Your task to perform on an android device: Add razer thresher to the cart on costco.com, then select checkout. Image 0: 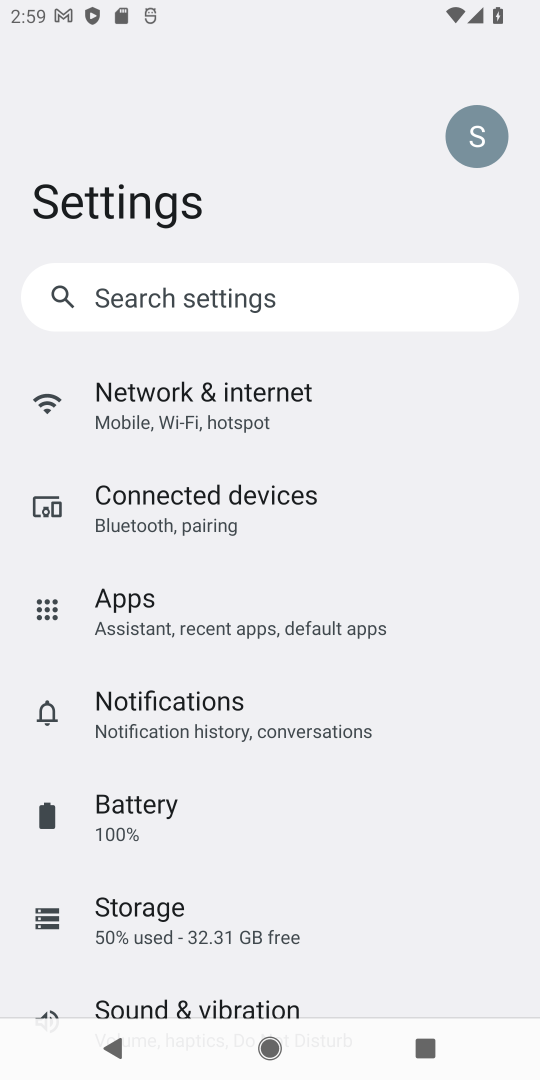
Step 0: press home button
Your task to perform on an android device: Add razer thresher to the cart on costco.com, then select checkout. Image 1: 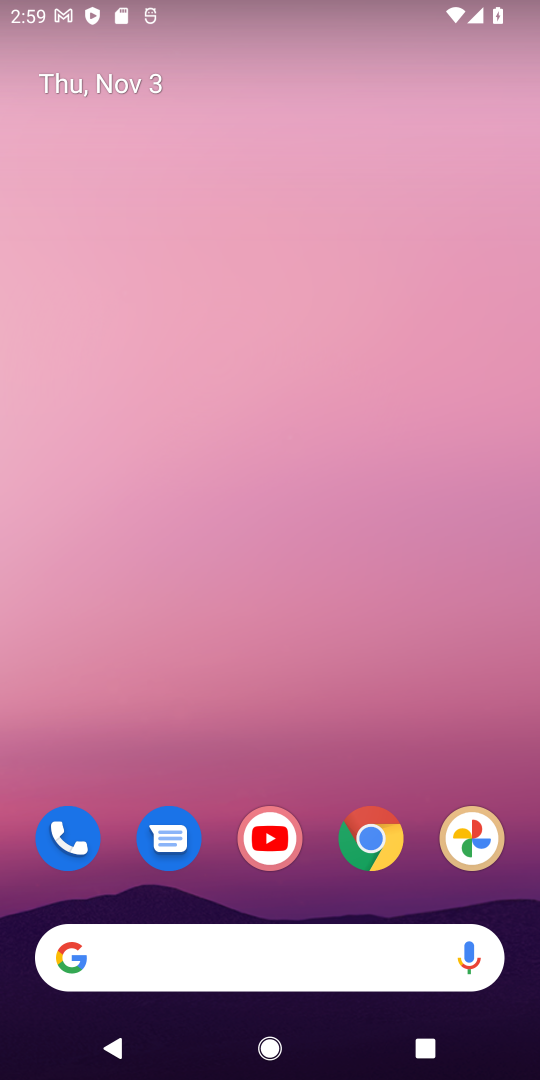
Step 1: drag from (326, 882) to (391, 227)
Your task to perform on an android device: Add razer thresher to the cart on costco.com, then select checkout. Image 2: 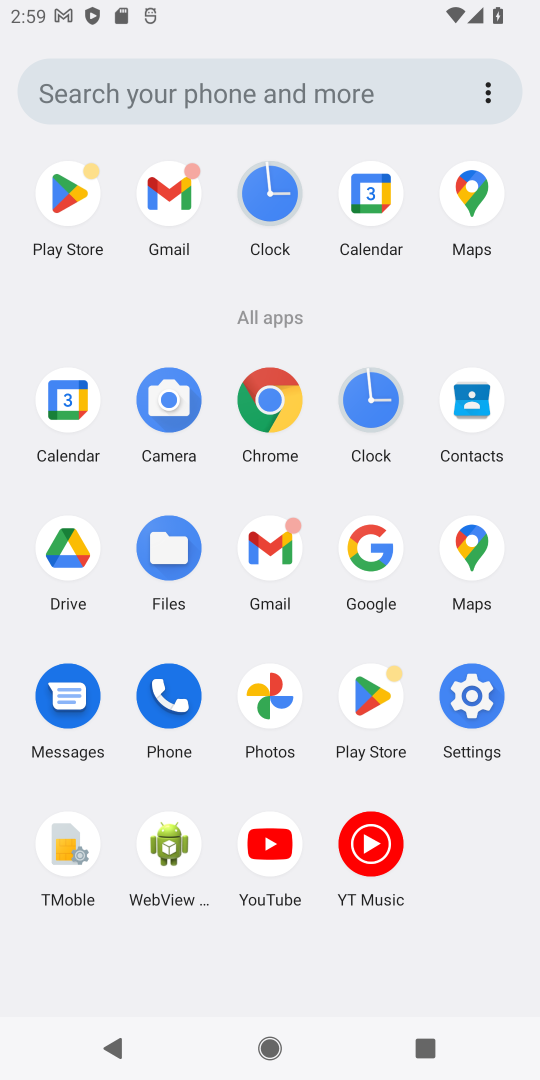
Step 2: click (268, 399)
Your task to perform on an android device: Add razer thresher to the cart on costco.com, then select checkout. Image 3: 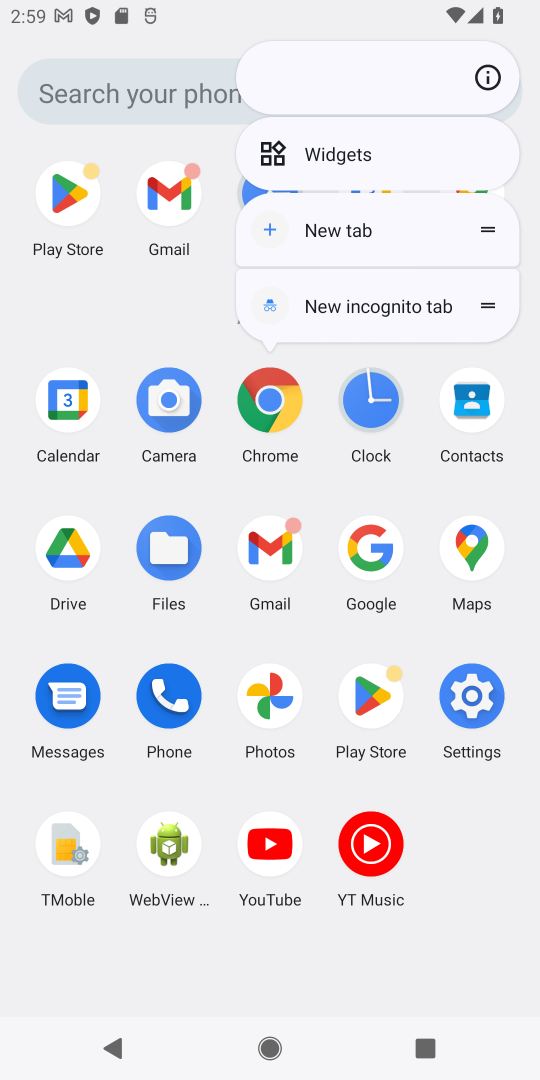
Step 3: click (268, 399)
Your task to perform on an android device: Add razer thresher to the cart on costco.com, then select checkout. Image 4: 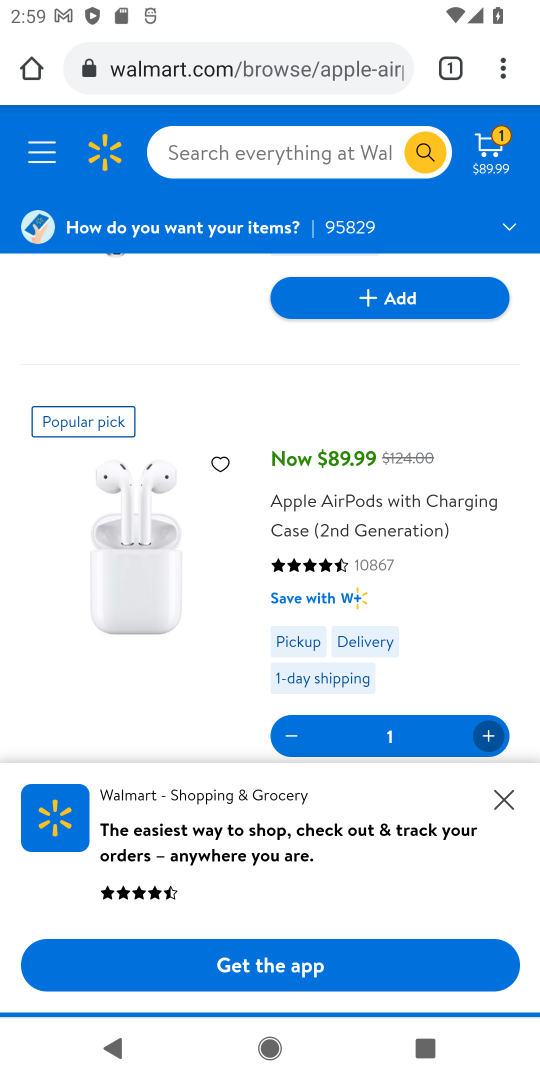
Step 4: click (307, 62)
Your task to perform on an android device: Add razer thresher to the cart on costco.com, then select checkout. Image 5: 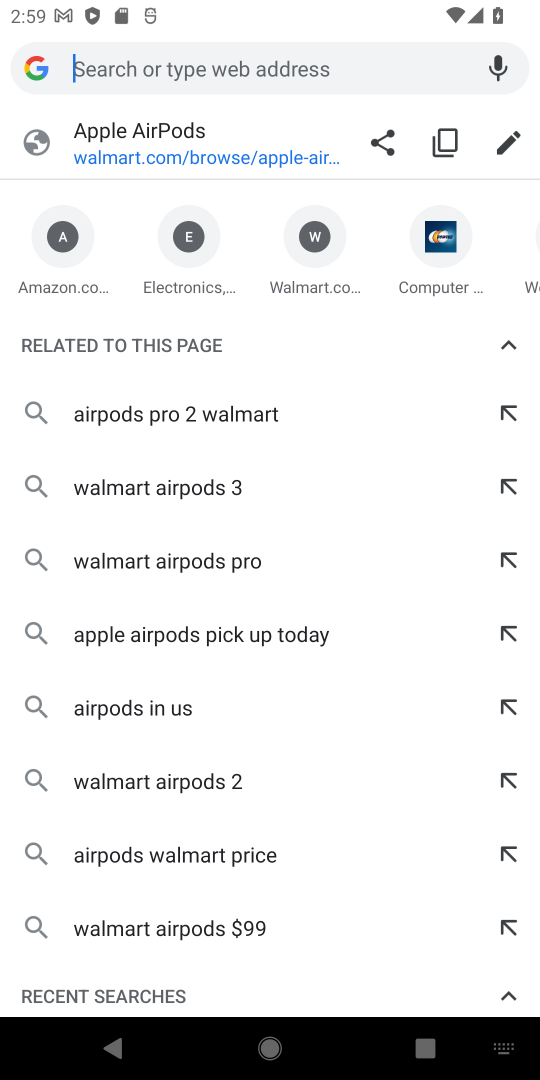
Step 5: type "costco.com"
Your task to perform on an android device: Add razer thresher to the cart on costco.com, then select checkout. Image 6: 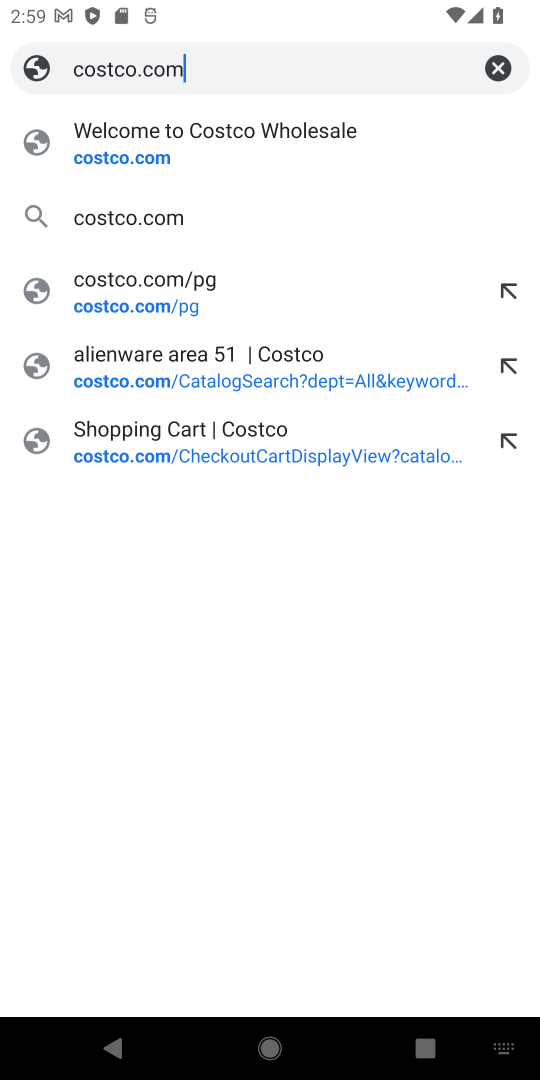
Step 6: press enter
Your task to perform on an android device: Add razer thresher to the cart on costco.com, then select checkout. Image 7: 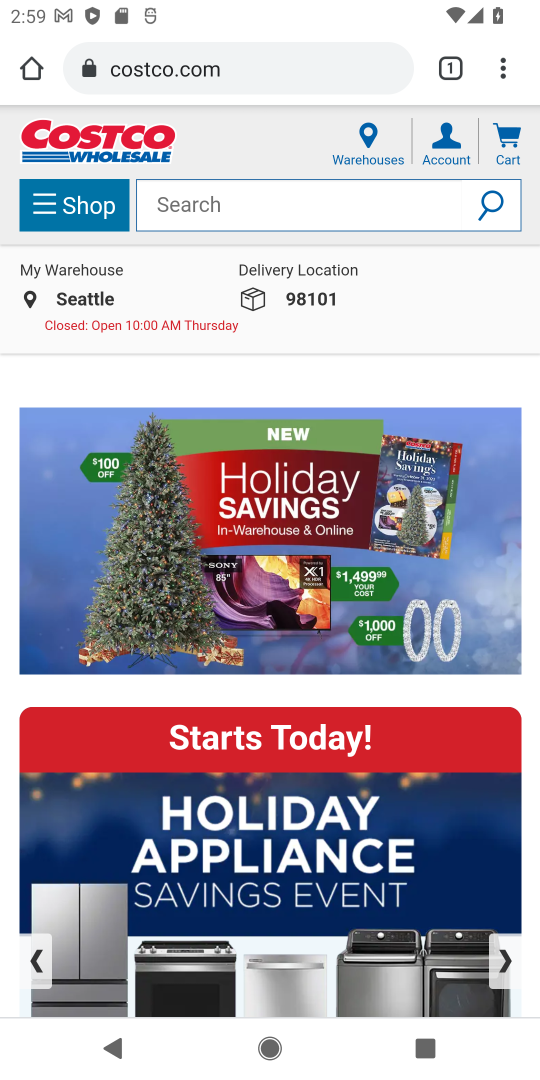
Step 7: click (304, 207)
Your task to perform on an android device: Add razer thresher to the cart on costco.com, then select checkout. Image 8: 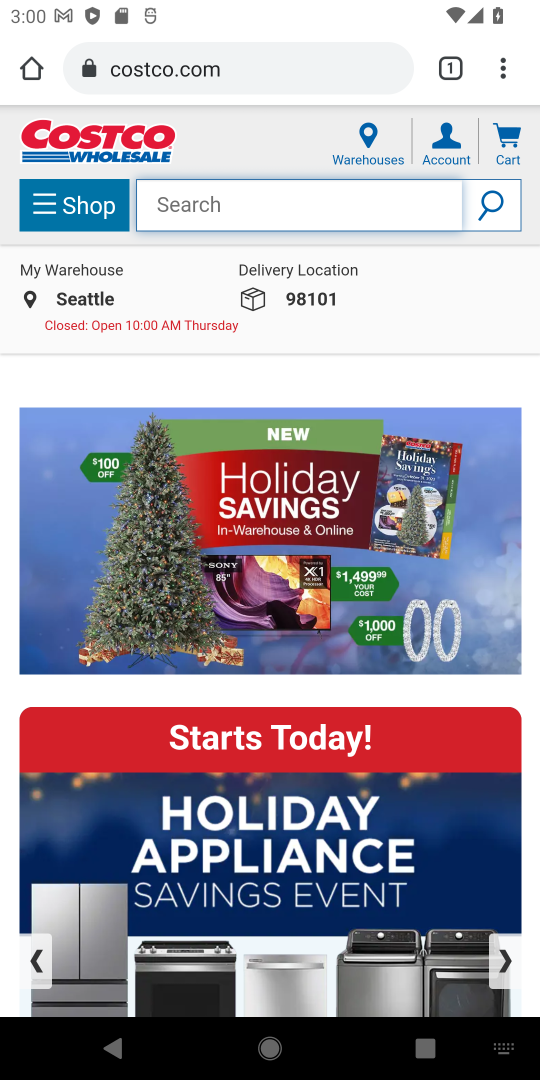
Step 8: type "razer thresher"
Your task to perform on an android device: Add razer thresher to the cart on costco.com, then select checkout. Image 9: 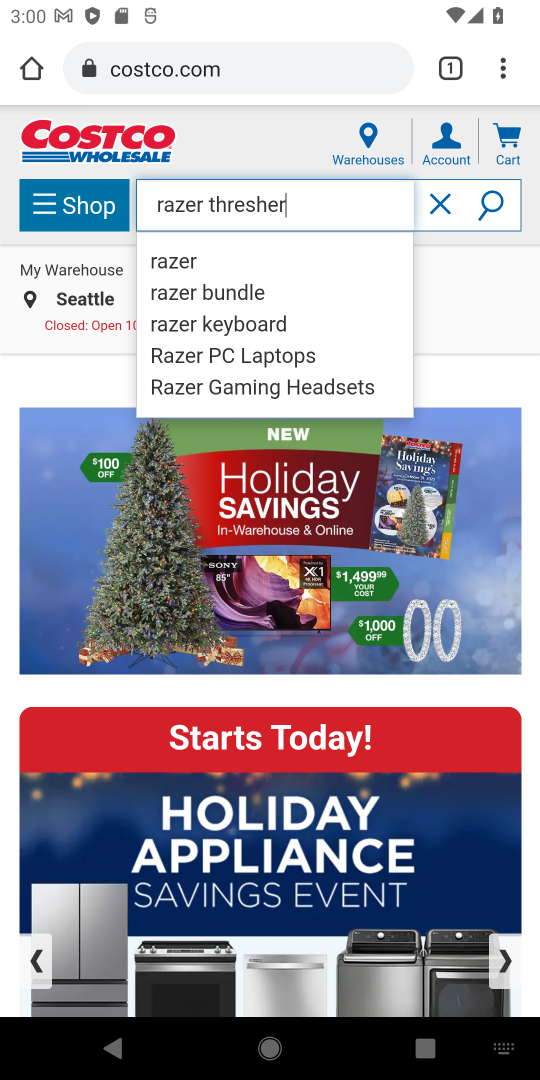
Step 9: press enter
Your task to perform on an android device: Add razer thresher to the cart on costco.com, then select checkout. Image 10: 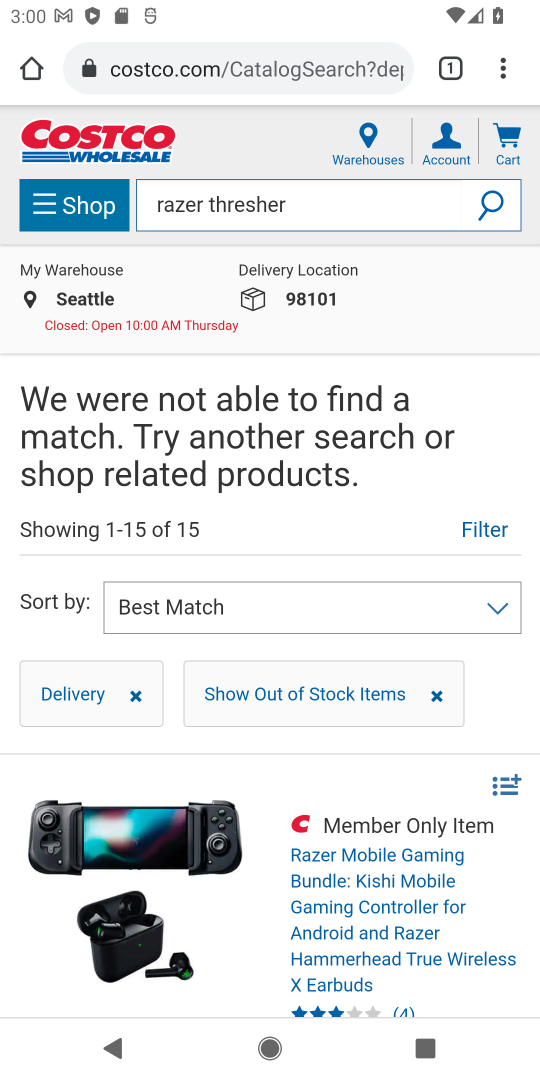
Step 10: task complete